Your task to perform on an android device: create a new album in the google photos Image 0: 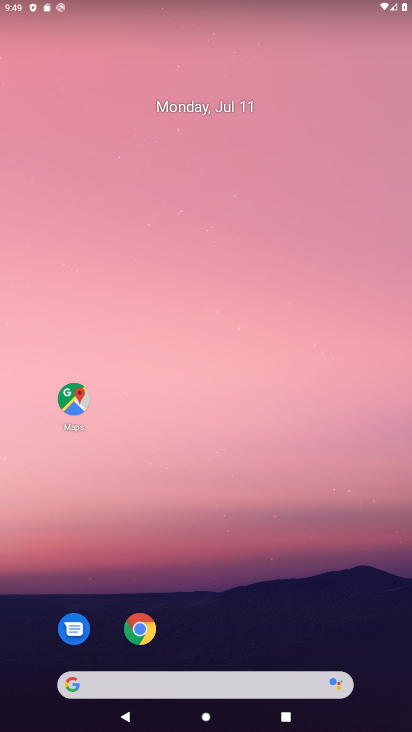
Step 0: drag from (278, 613) to (253, 188)
Your task to perform on an android device: create a new album in the google photos Image 1: 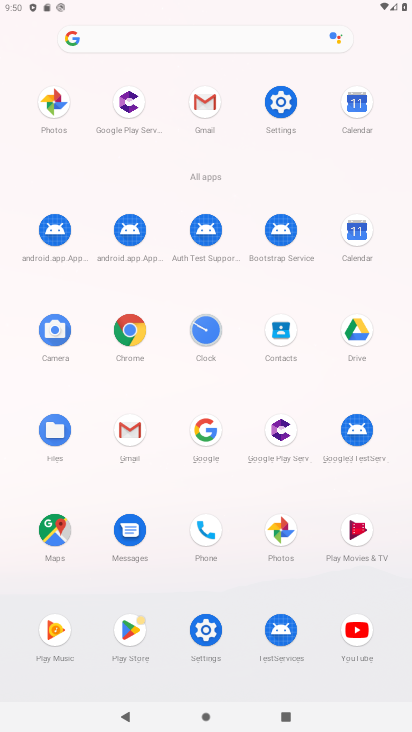
Step 1: click (281, 527)
Your task to perform on an android device: create a new album in the google photos Image 2: 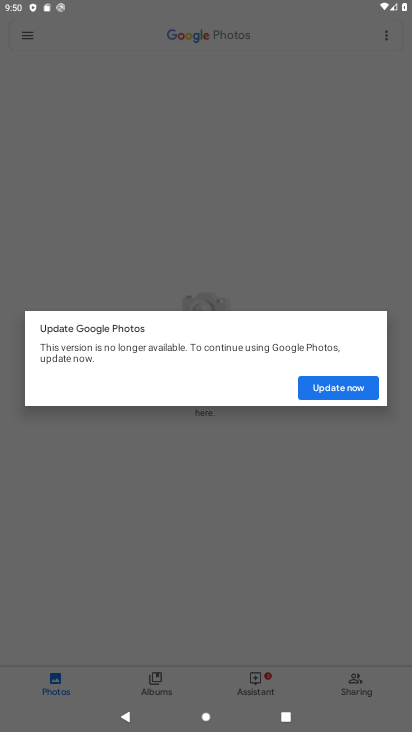
Step 2: click (359, 390)
Your task to perform on an android device: create a new album in the google photos Image 3: 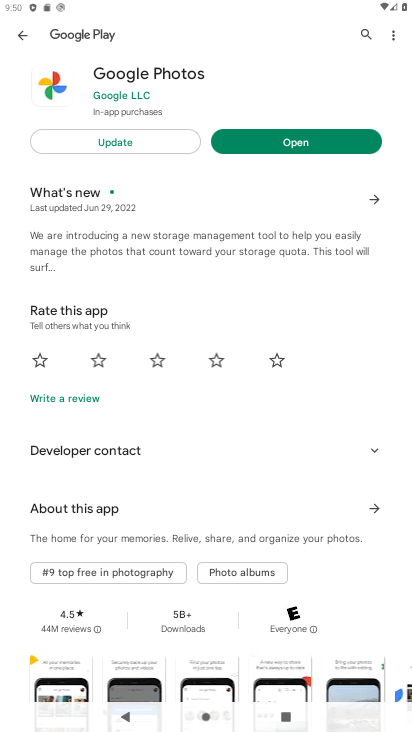
Step 3: click (116, 140)
Your task to perform on an android device: create a new album in the google photos Image 4: 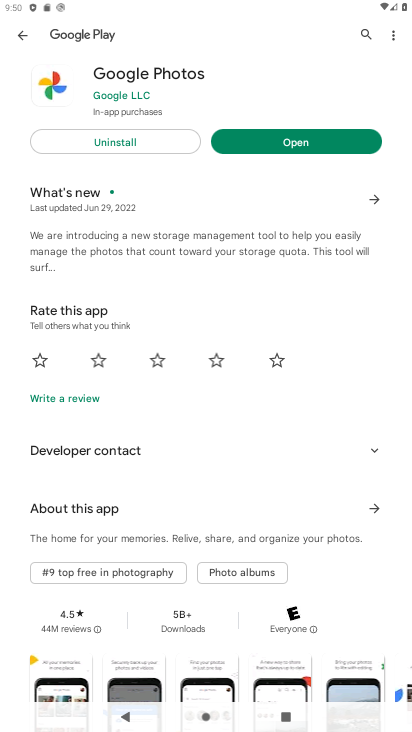
Step 4: click (272, 145)
Your task to perform on an android device: create a new album in the google photos Image 5: 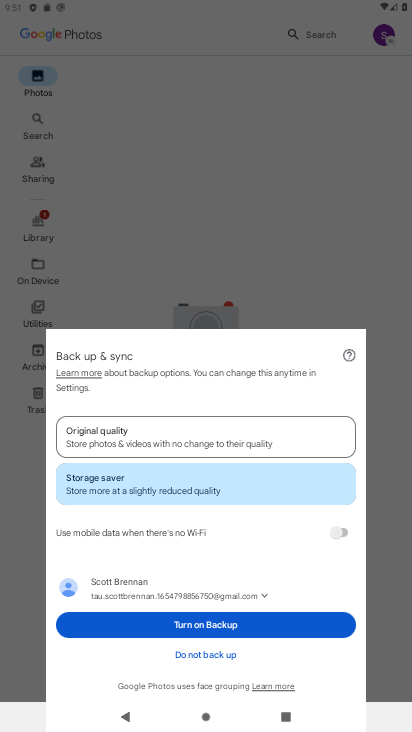
Step 5: click (213, 629)
Your task to perform on an android device: create a new album in the google photos Image 6: 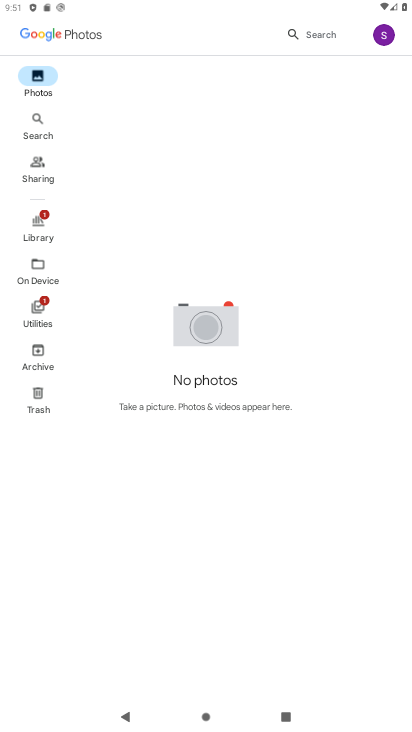
Step 6: click (381, 35)
Your task to perform on an android device: create a new album in the google photos Image 7: 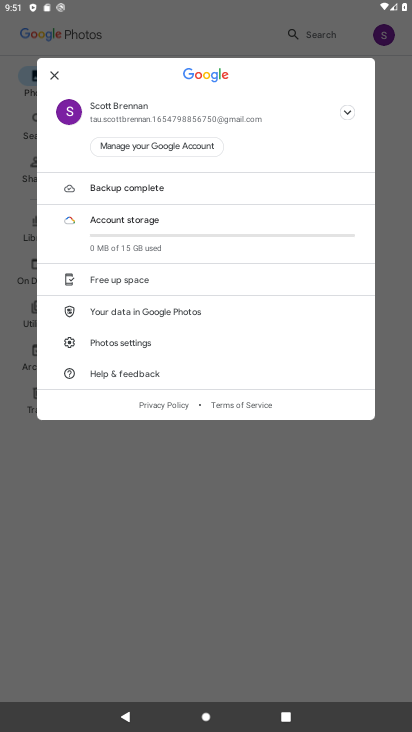
Step 7: click (186, 520)
Your task to perform on an android device: create a new album in the google photos Image 8: 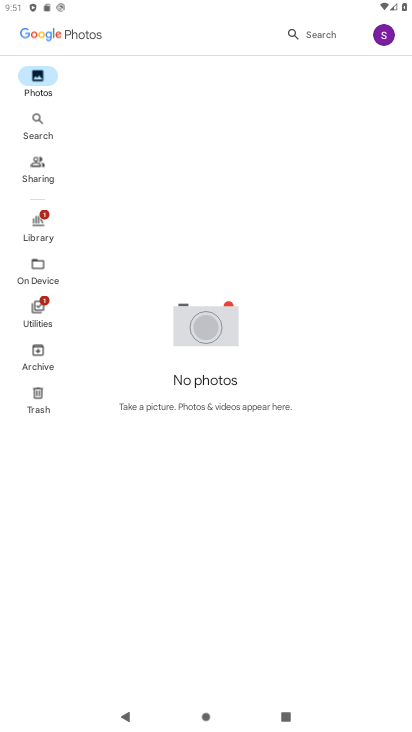
Step 8: click (45, 234)
Your task to perform on an android device: create a new album in the google photos Image 9: 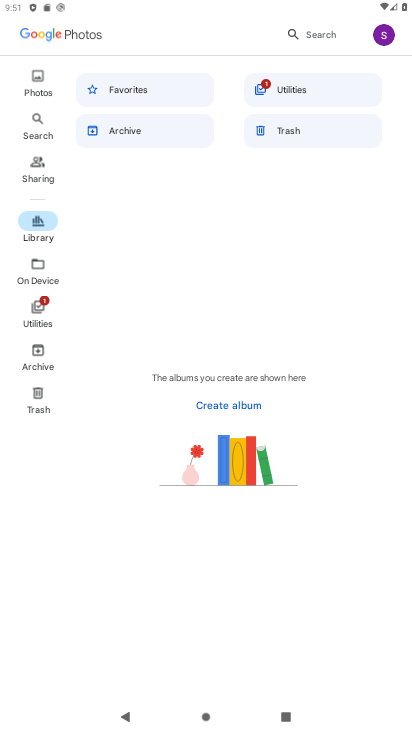
Step 9: click (42, 307)
Your task to perform on an android device: create a new album in the google photos Image 10: 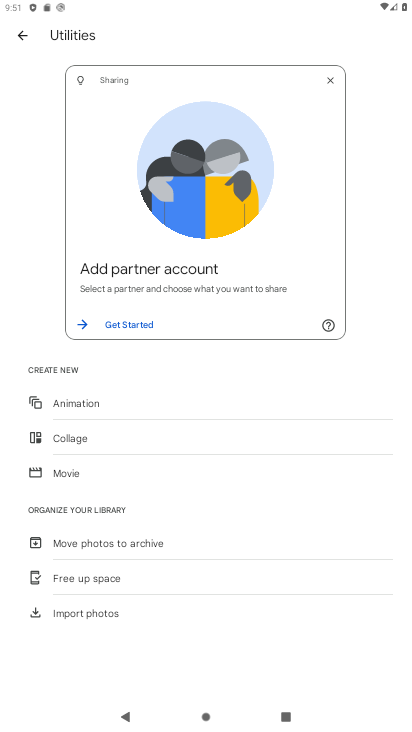
Step 10: task complete